Your task to perform on an android device: manage bookmarks in the chrome app Image 0: 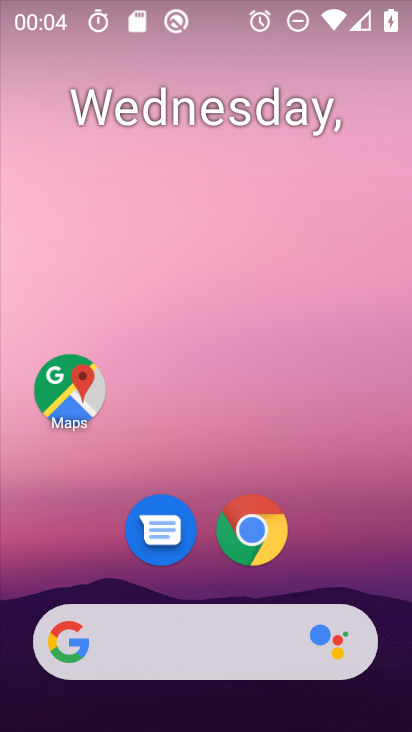
Step 0: click (248, 528)
Your task to perform on an android device: manage bookmarks in the chrome app Image 1: 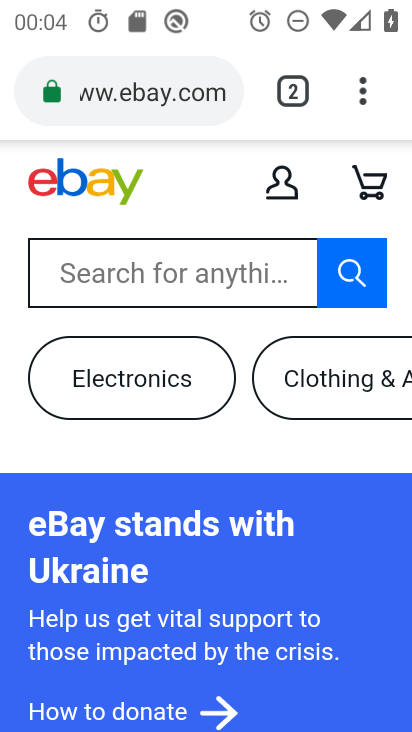
Step 1: drag from (369, 82) to (202, 210)
Your task to perform on an android device: manage bookmarks in the chrome app Image 2: 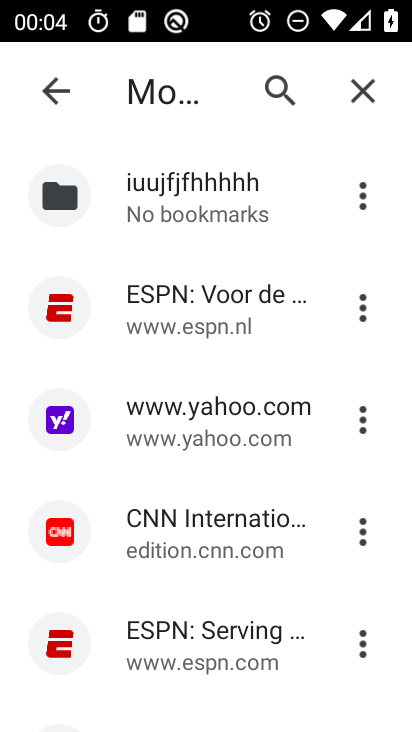
Step 2: click (367, 305)
Your task to perform on an android device: manage bookmarks in the chrome app Image 3: 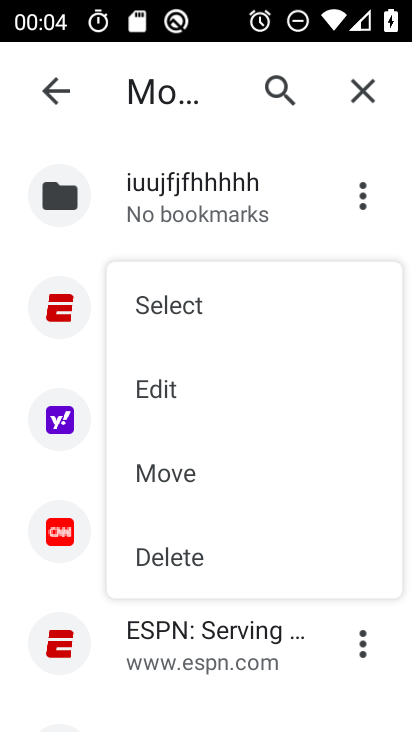
Step 3: click (186, 562)
Your task to perform on an android device: manage bookmarks in the chrome app Image 4: 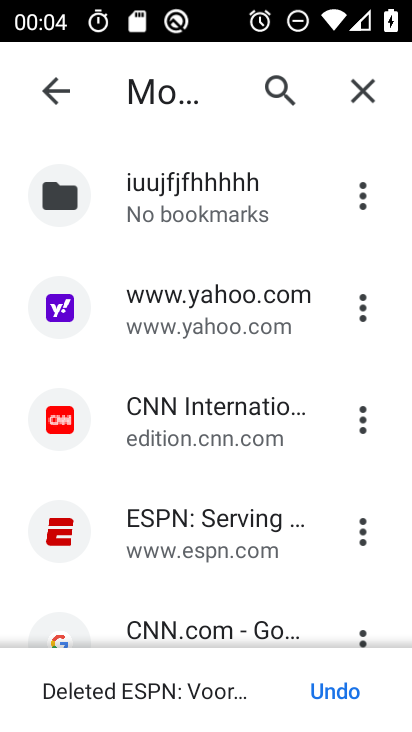
Step 4: task complete